Your task to perform on an android device: Go to Maps Image 0: 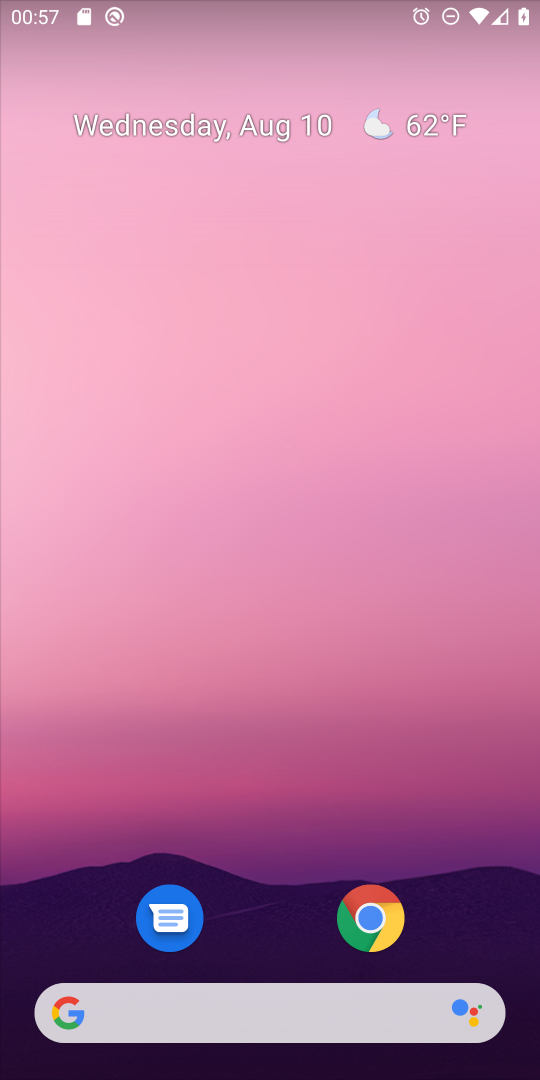
Step 0: drag from (287, 212) to (308, 1)
Your task to perform on an android device: Go to Maps Image 1: 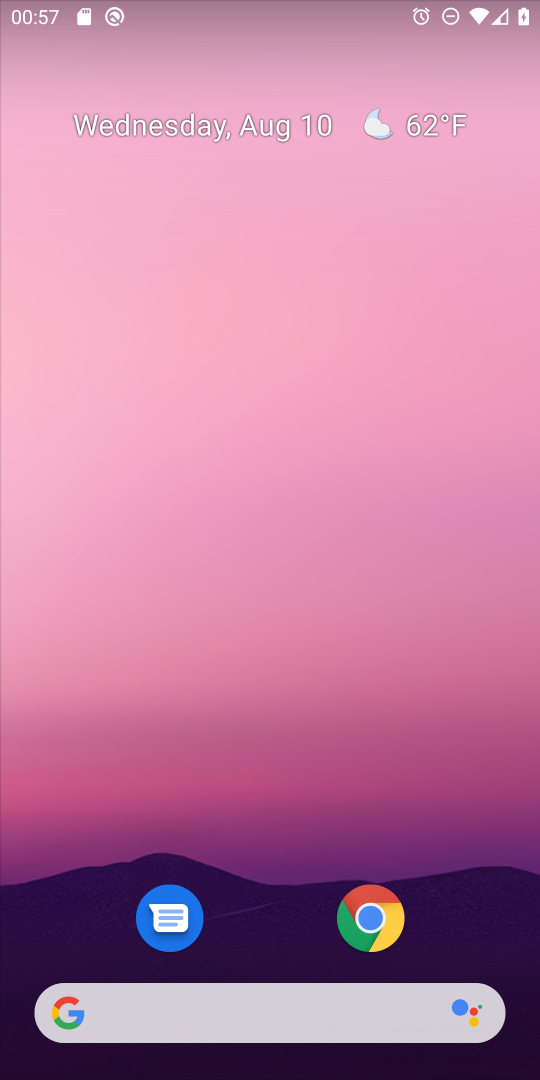
Step 1: drag from (272, 751) to (400, 12)
Your task to perform on an android device: Go to Maps Image 2: 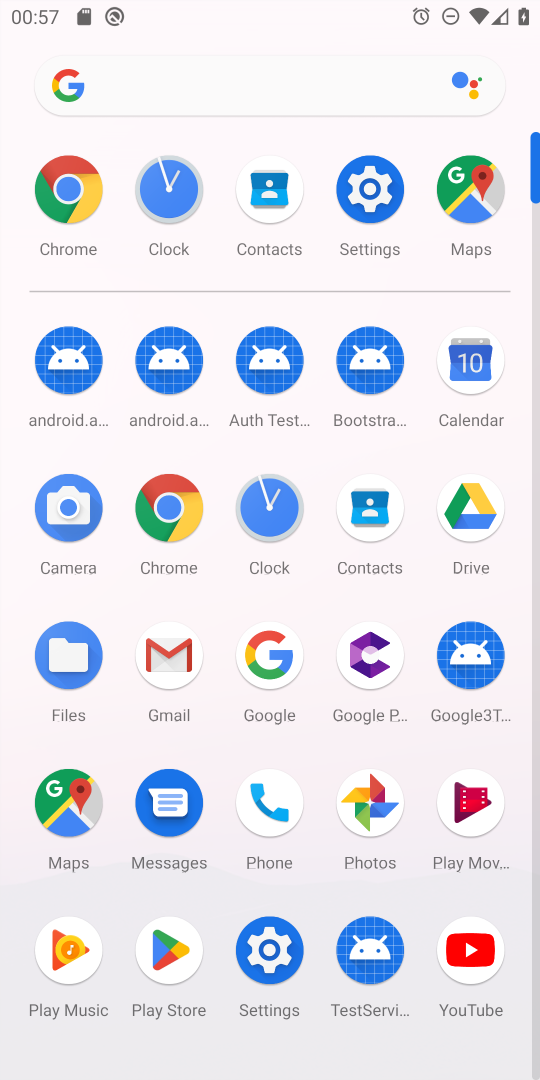
Step 2: click (69, 797)
Your task to perform on an android device: Go to Maps Image 3: 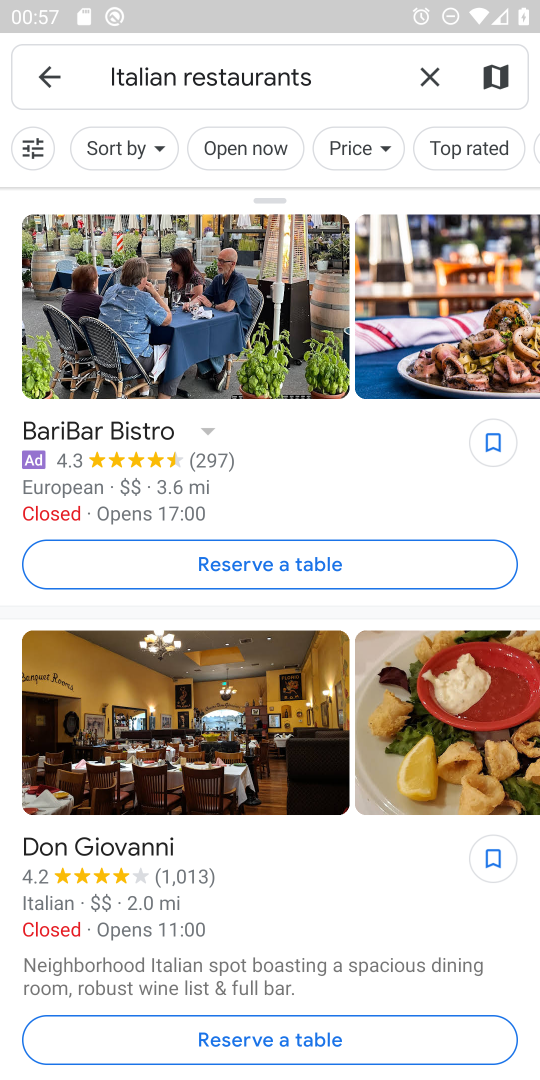
Step 3: task complete